Your task to perform on an android device: install app "Paramount+ | Peak Streaming" Image 0: 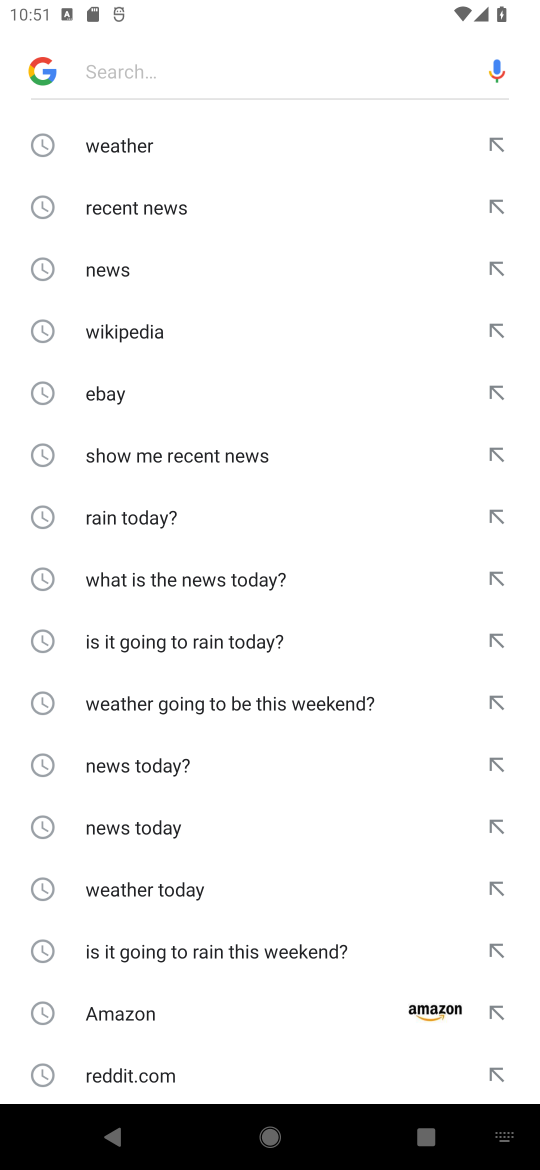
Step 0: click (156, 69)
Your task to perform on an android device: install app "Paramount+ | Peak Streaming" Image 1: 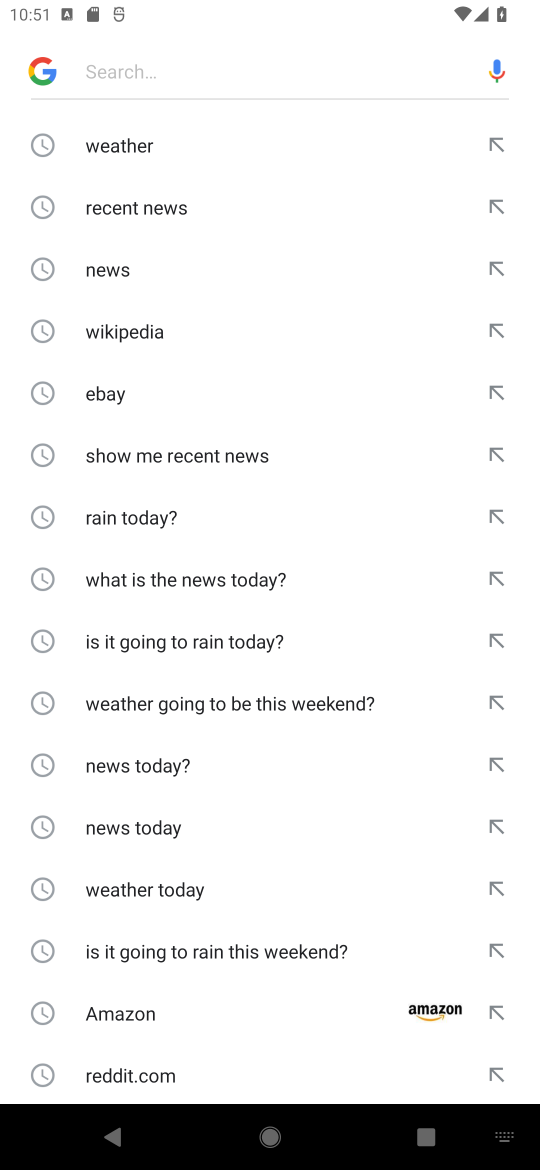
Step 1: press home button
Your task to perform on an android device: install app "Paramount+ | Peak Streaming" Image 2: 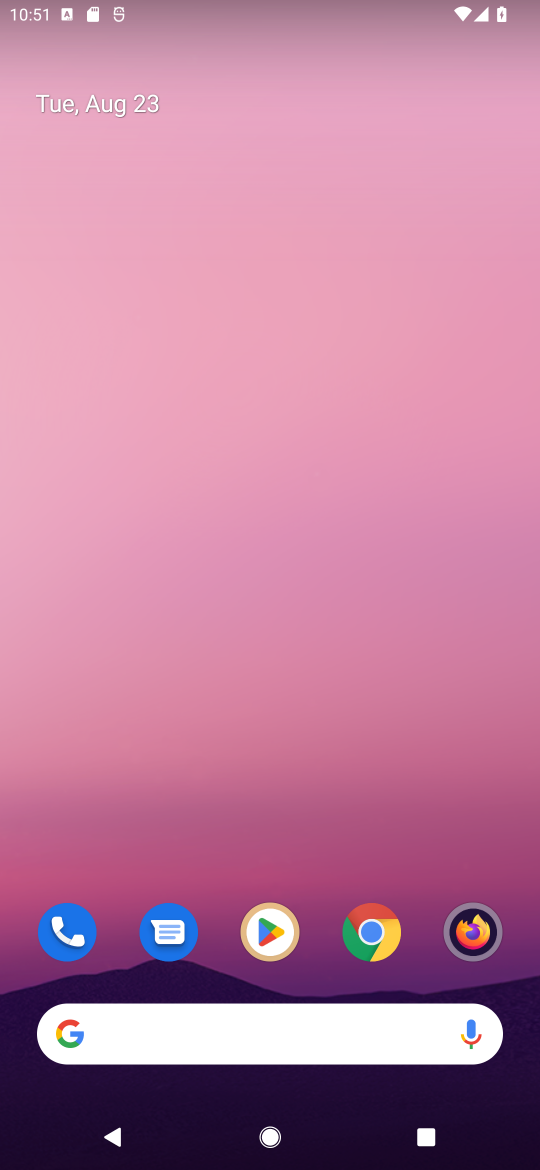
Step 2: click (263, 943)
Your task to perform on an android device: install app "Paramount+ | Peak Streaming" Image 3: 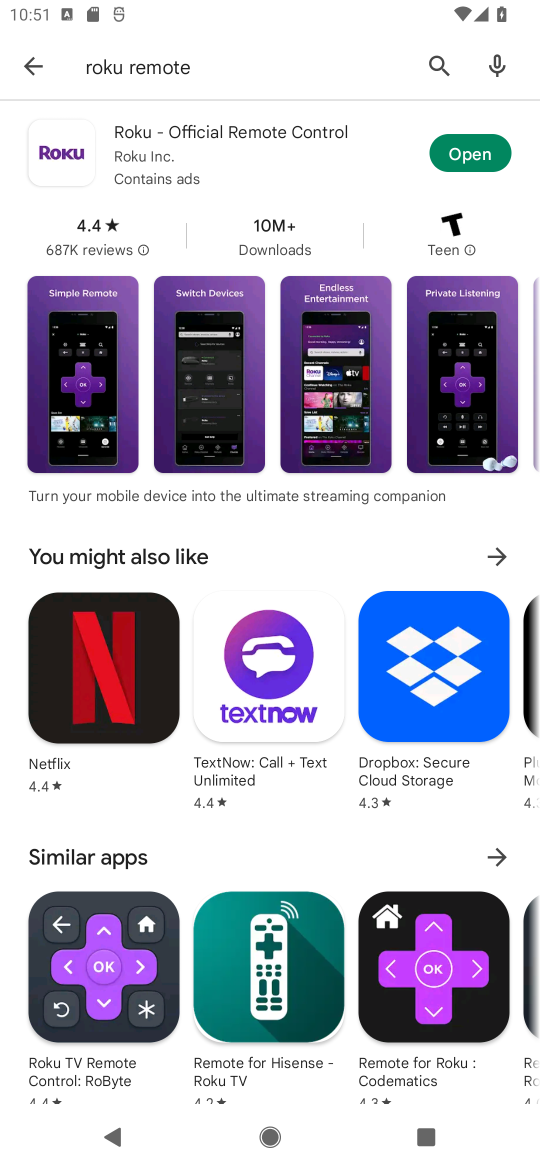
Step 3: click (429, 57)
Your task to perform on an android device: install app "Paramount+ | Peak Streaming" Image 4: 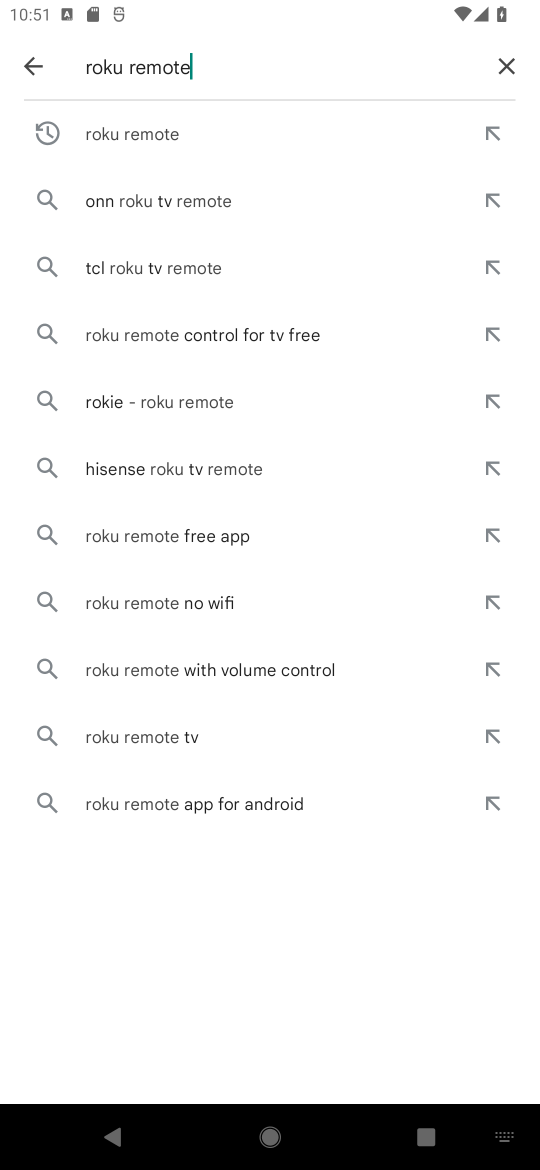
Step 4: click (513, 59)
Your task to perform on an android device: install app "Paramount+ | Peak Streaming" Image 5: 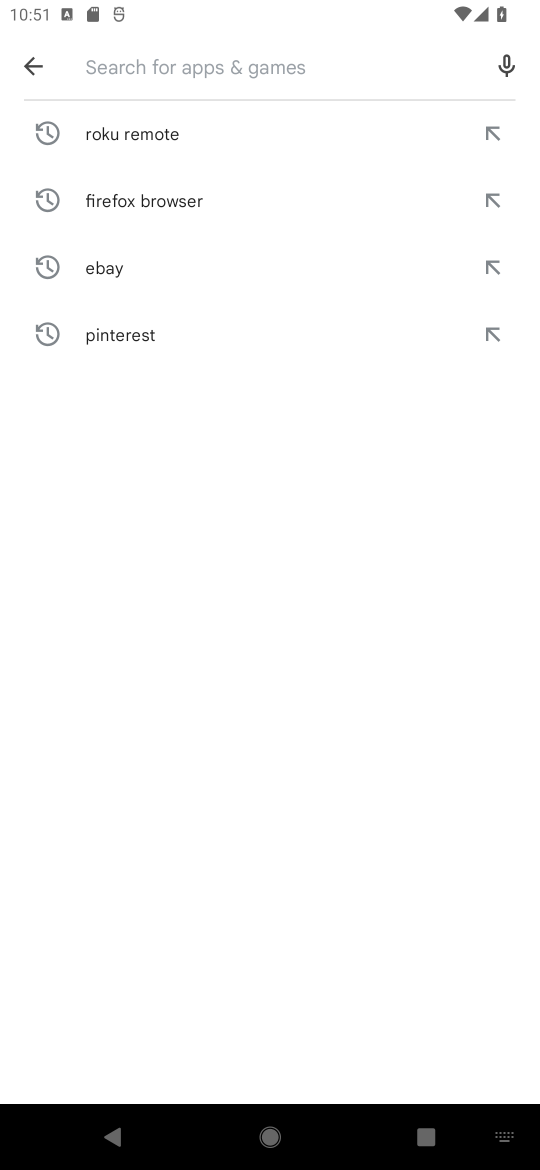
Step 5: click (116, 44)
Your task to perform on an android device: install app "Paramount+ | Peak Streaming" Image 6: 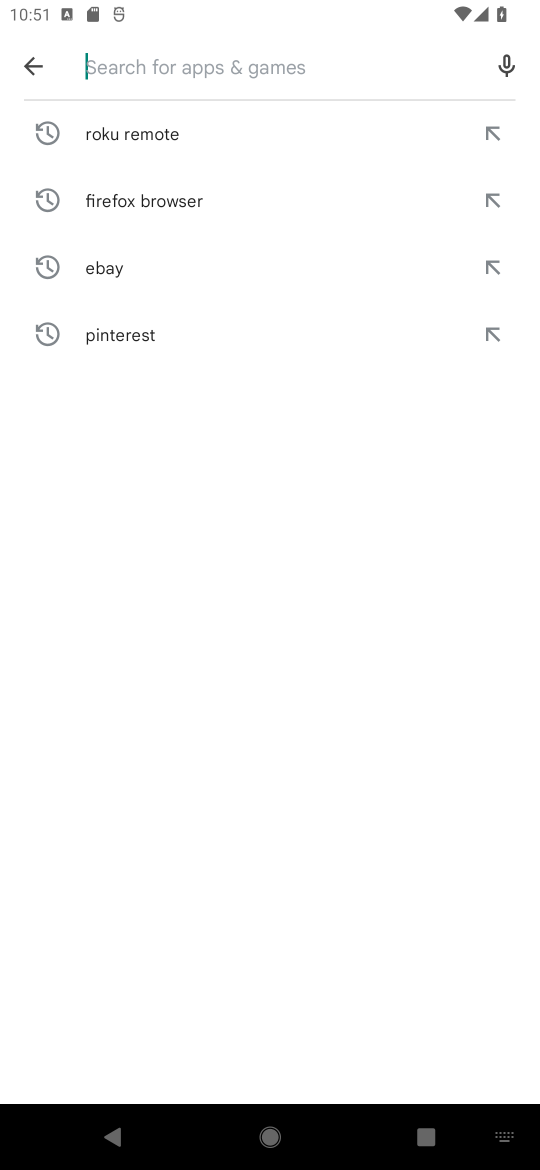
Step 6: type "Paramount+"
Your task to perform on an android device: install app "Paramount+ | Peak Streaming" Image 7: 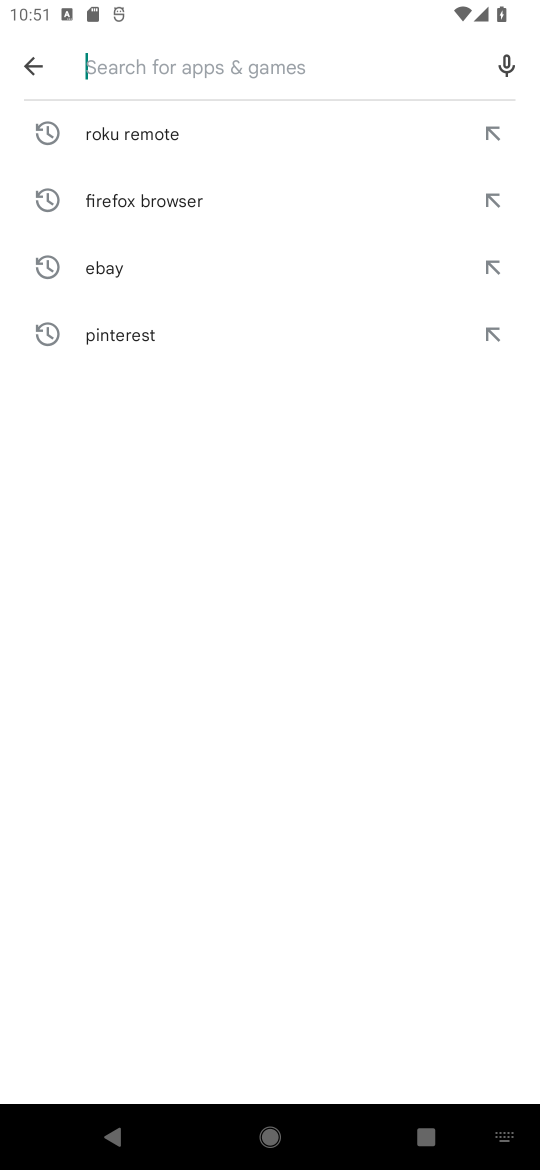
Step 7: click (323, 765)
Your task to perform on an android device: install app "Paramount+ | Peak Streaming" Image 8: 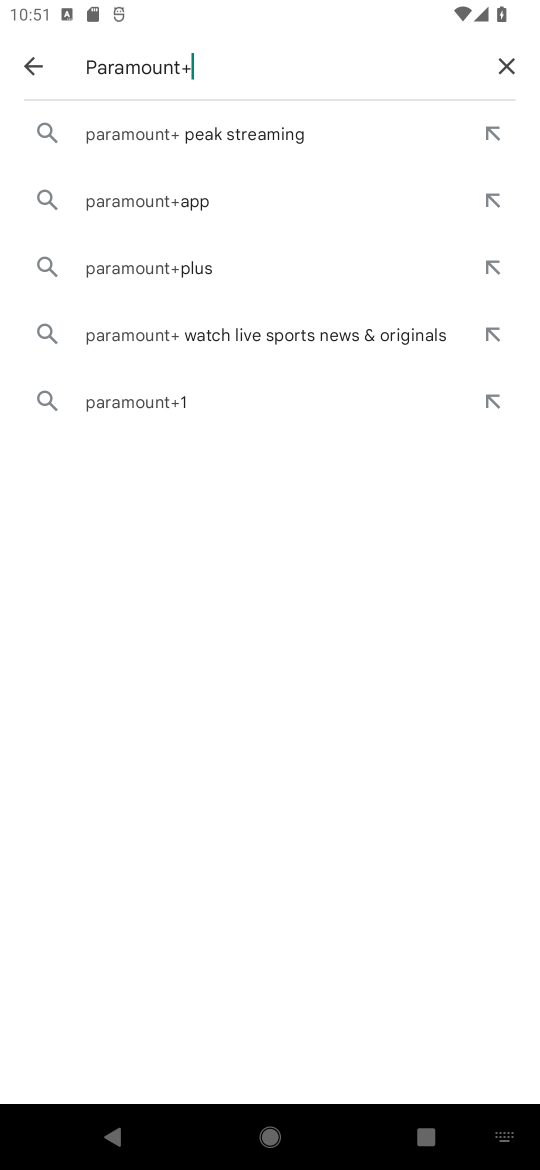
Step 8: click (195, 141)
Your task to perform on an android device: install app "Paramount+ | Peak Streaming" Image 9: 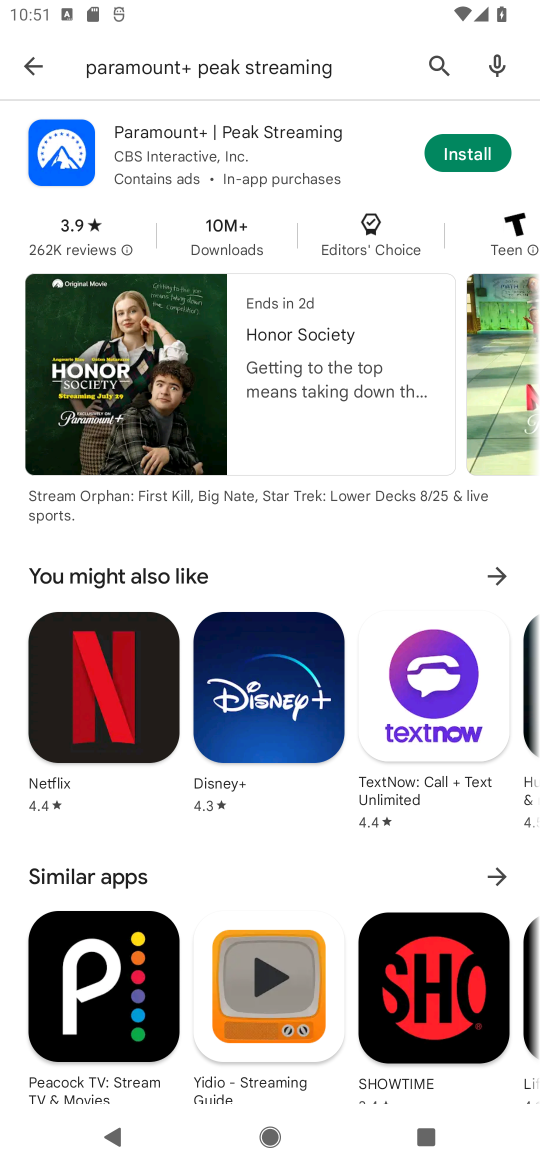
Step 9: click (455, 146)
Your task to perform on an android device: install app "Paramount+ | Peak Streaming" Image 10: 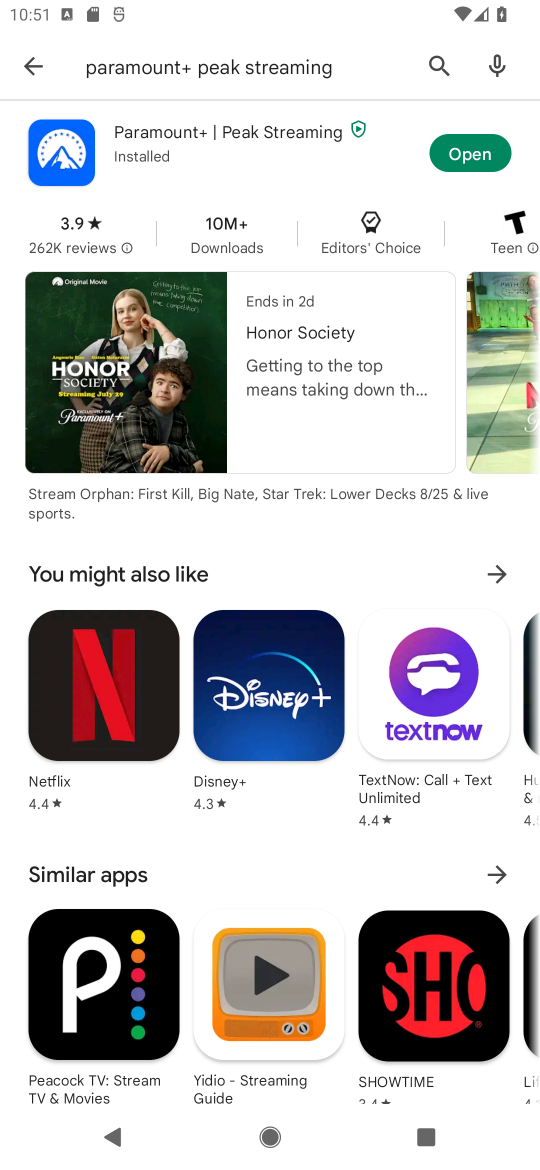
Step 10: task complete